Your task to perform on an android device: search for starred emails in the gmail app Image 0: 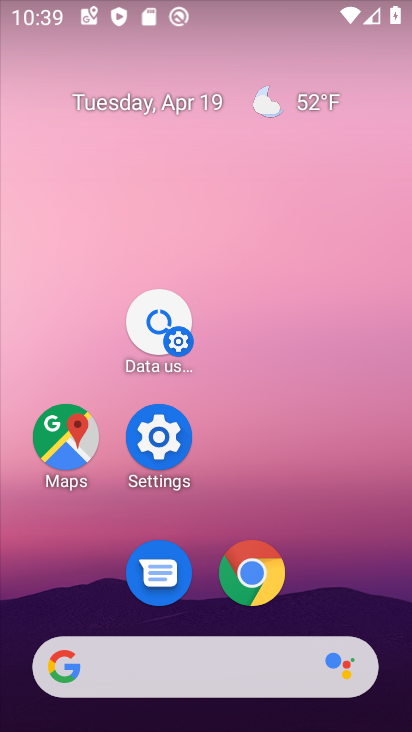
Step 0: drag from (362, 557) to (350, 12)
Your task to perform on an android device: search for starred emails in the gmail app Image 1: 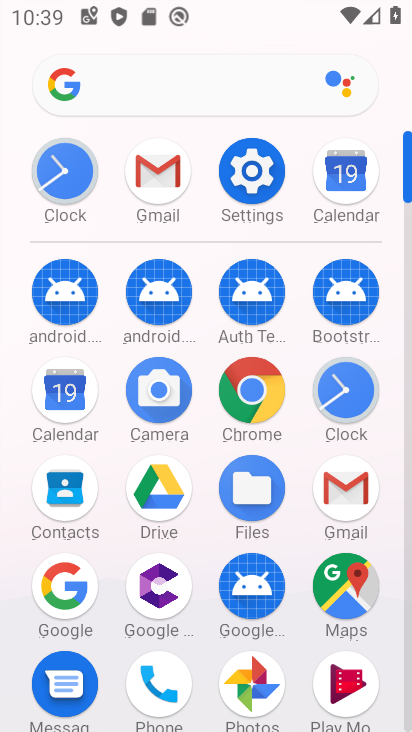
Step 1: click (158, 178)
Your task to perform on an android device: search for starred emails in the gmail app Image 2: 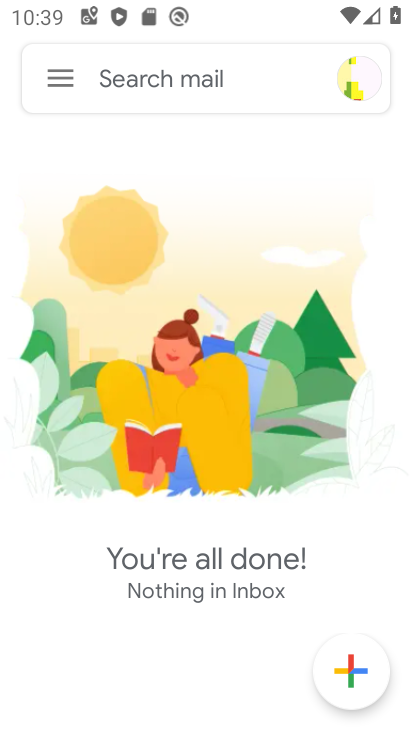
Step 2: click (64, 89)
Your task to perform on an android device: search for starred emails in the gmail app Image 3: 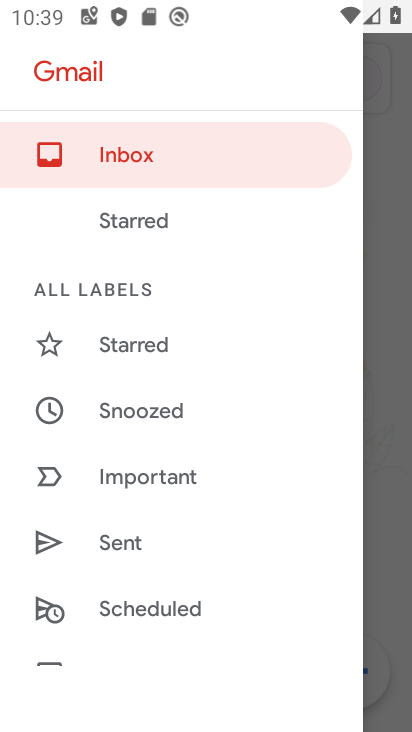
Step 3: click (117, 345)
Your task to perform on an android device: search for starred emails in the gmail app Image 4: 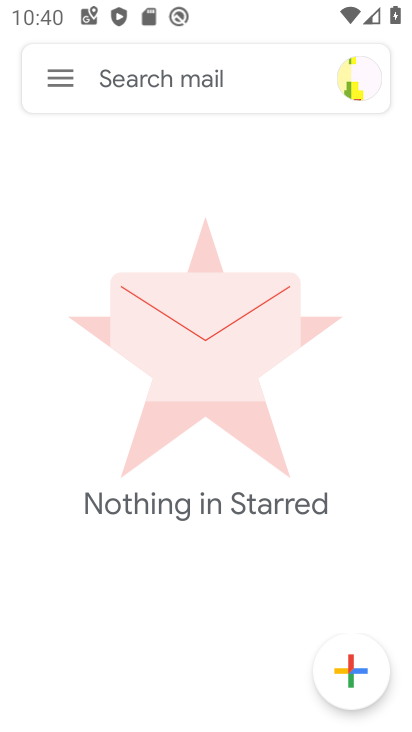
Step 4: task complete